Your task to perform on an android device: toggle data saver in the chrome app Image 0: 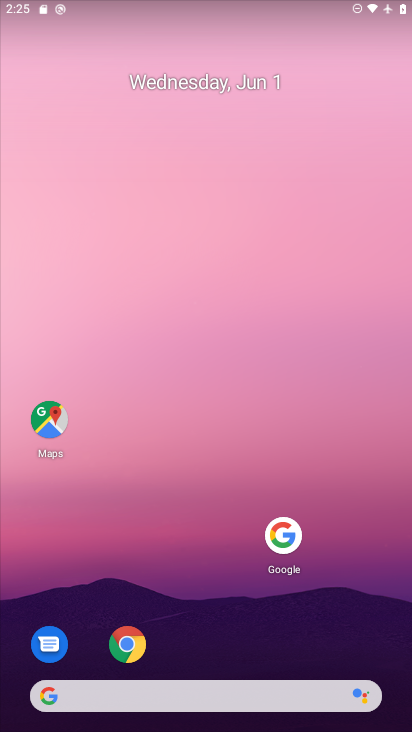
Step 0: click (132, 646)
Your task to perform on an android device: toggle data saver in the chrome app Image 1: 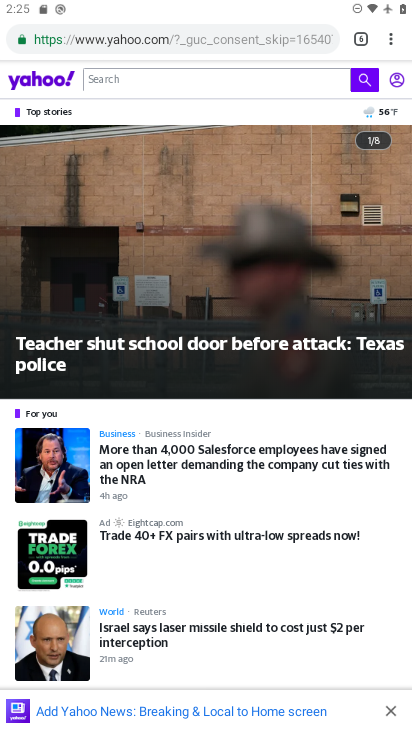
Step 1: drag from (389, 34) to (269, 510)
Your task to perform on an android device: toggle data saver in the chrome app Image 2: 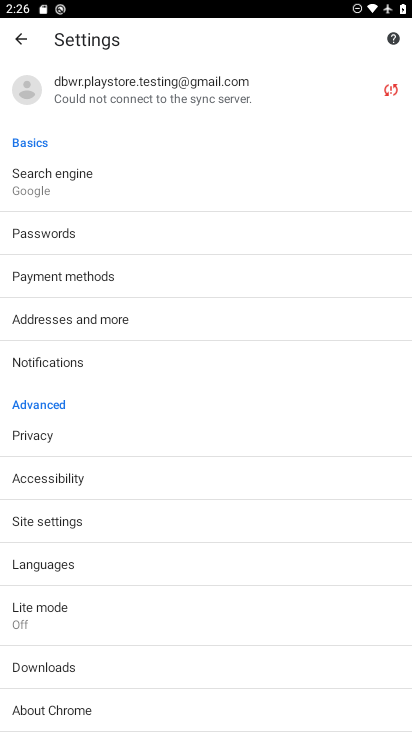
Step 2: click (64, 609)
Your task to perform on an android device: toggle data saver in the chrome app Image 3: 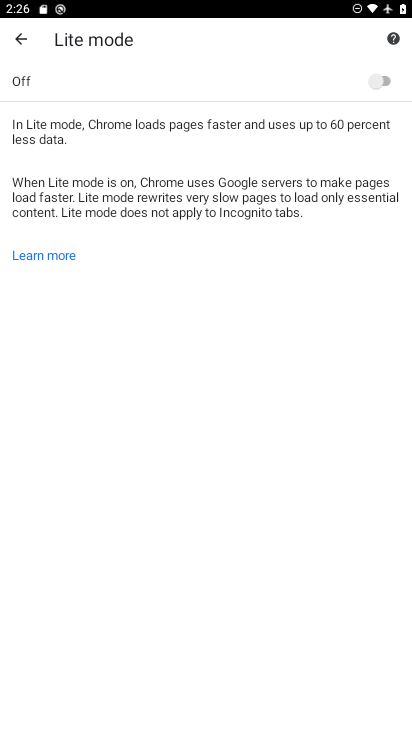
Step 3: click (387, 77)
Your task to perform on an android device: toggle data saver in the chrome app Image 4: 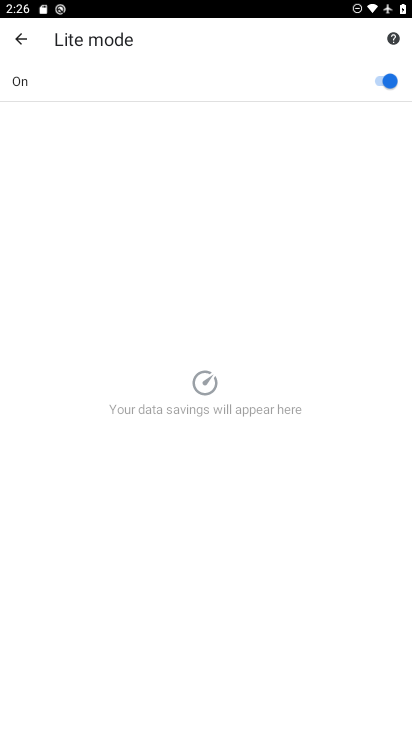
Step 4: task complete